Your task to perform on an android device: open the mobile data screen to see how much data has been used Image 0: 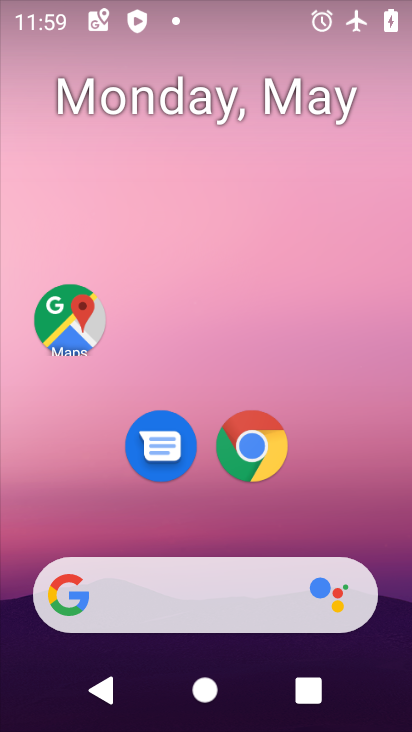
Step 0: drag from (335, 434) to (334, 211)
Your task to perform on an android device: open the mobile data screen to see how much data has been used Image 1: 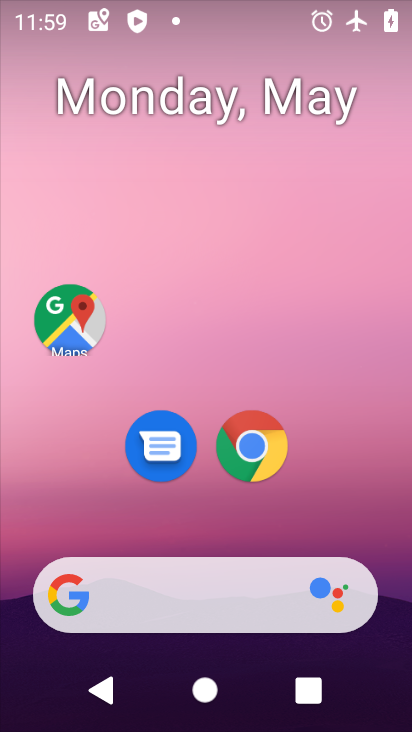
Step 1: drag from (246, 438) to (250, 204)
Your task to perform on an android device: open the mobile data screen to see how much data has been used Image 2: 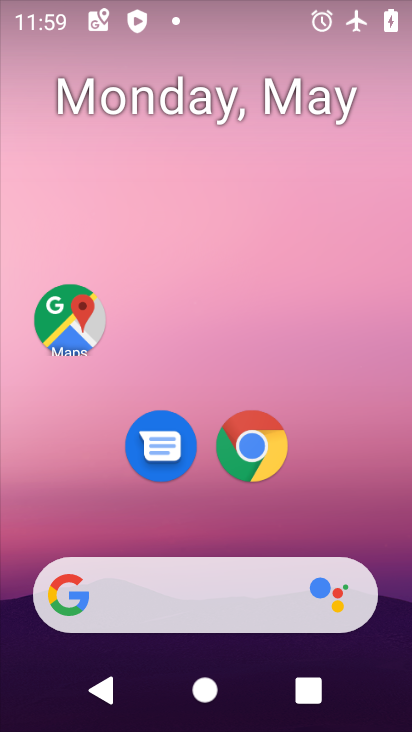
Step 2: drag from (225, 498) to (280, 220)
Your task to perform on an android device: open the mobile data screen to see how much data has been used Image 3: 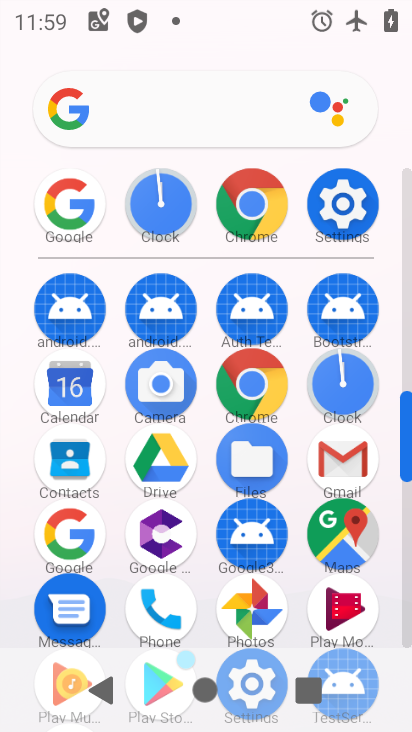
Step 3: click (345, 187)
Your task to perform on an android device: open the mobile data screen to see how much data has been used Image 4: 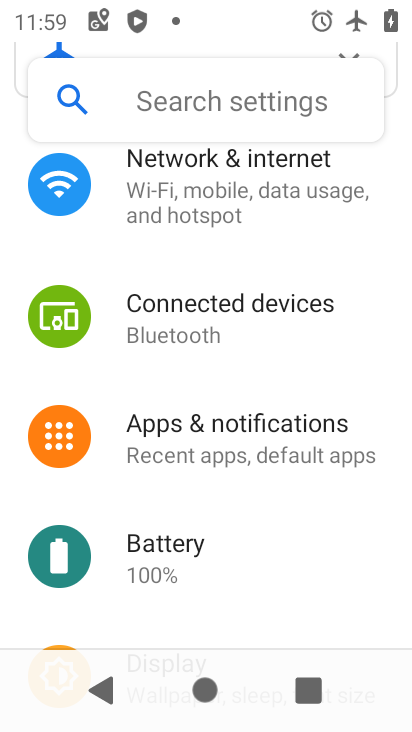
Step 4: click (209, 197)
Your task to perform on an android device: open the mobile data screen to see how much data has been used Image 5: 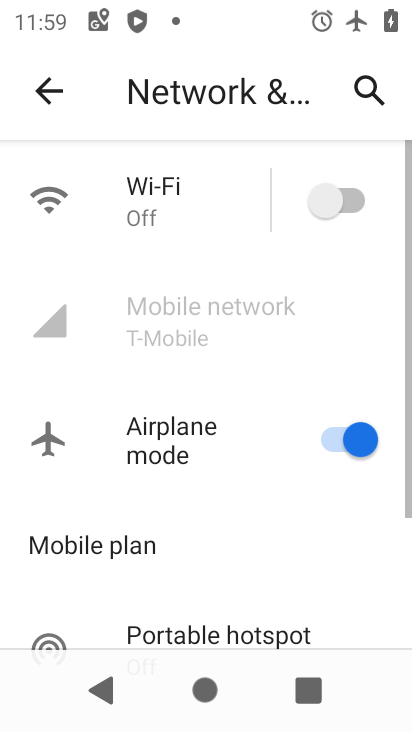
Step 5: click (180, 316)
Your task to perform on an android device: open the mobile data screen to see how much data has been used Image 6: 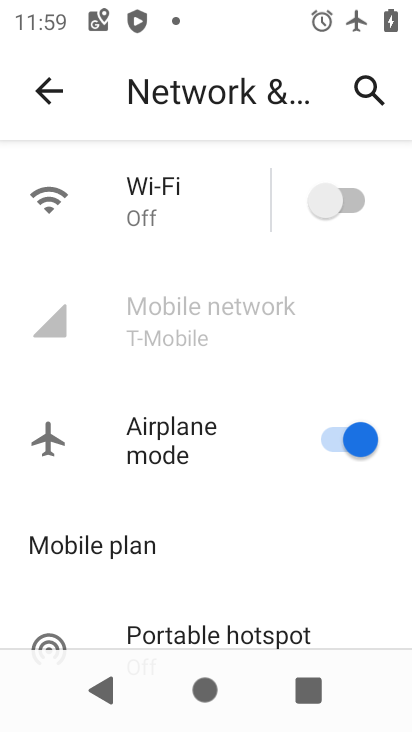
Step 6: task complete